Your task to perform on an android device: Open Maps and search for coffee Image 0: 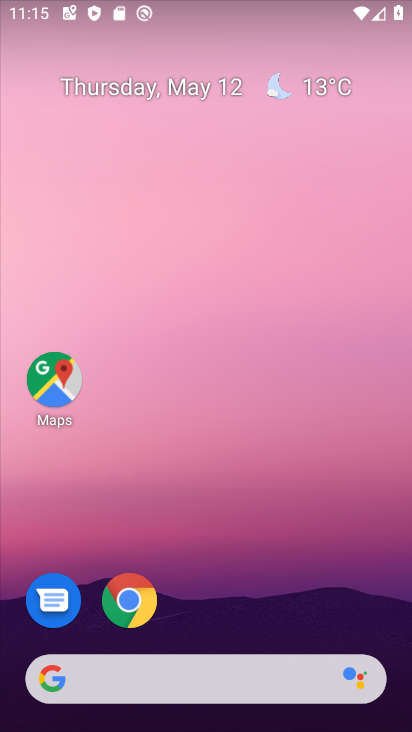
Step 0: click (53, 379)
Your task to perform on an android device: Open Maps and search for coffee Image 1: 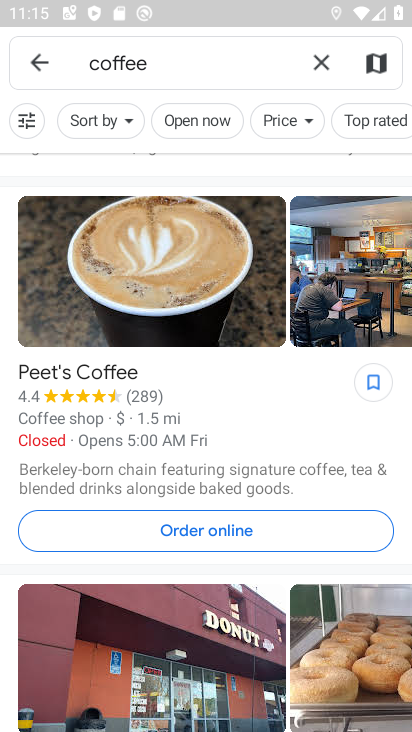
Step 1: task complete